Your task to perform on an android device: choose inbox layout in the gmail app Image 0: 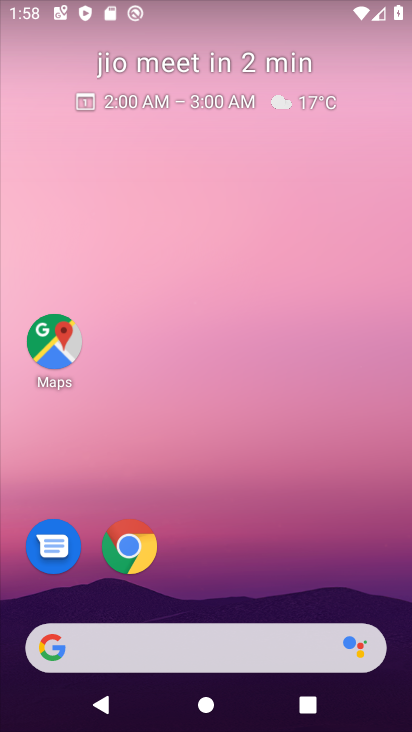
Step 0: drag from (249, 561) to (274, 19)
Your task to perform on an android device: choose inbox layout in the gmail app Image 1: 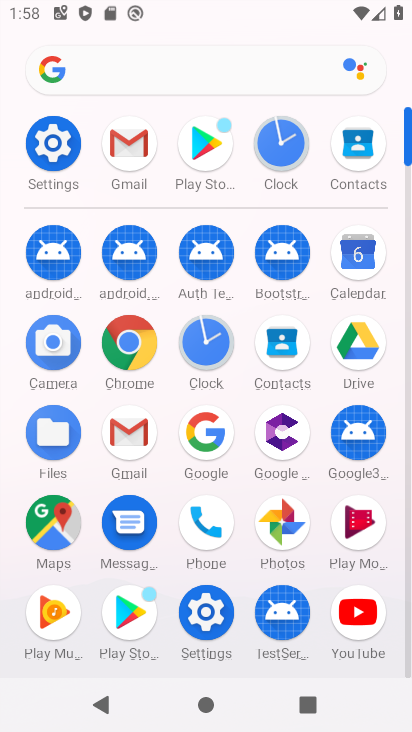
Step 1: click (142, 151)
Your task to perform on an android device: choose inbox layout in the gmail app Image 2: 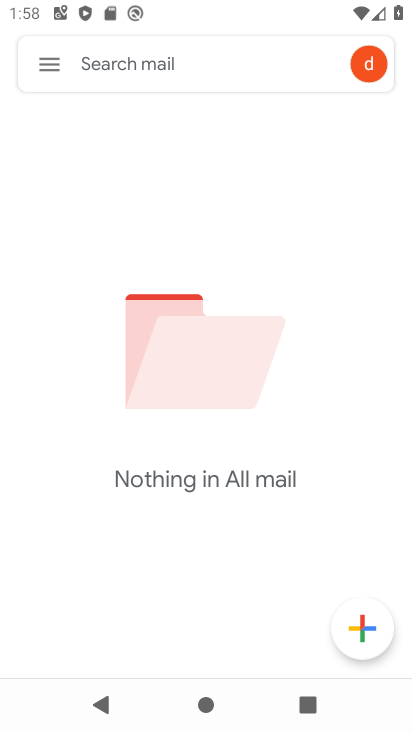
Step 2: task complete